Your task to perform on an android device: Show me popular games on the Play Store Image 0: 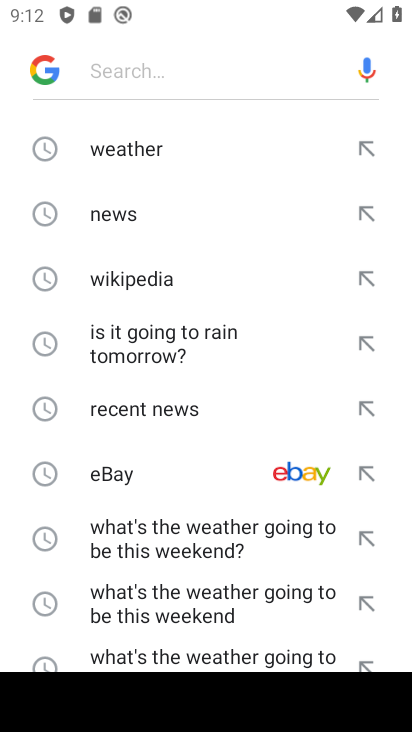
Step 0: press home button
Your task to perform on an android device: Show me popular games on the Play Store Image 1: 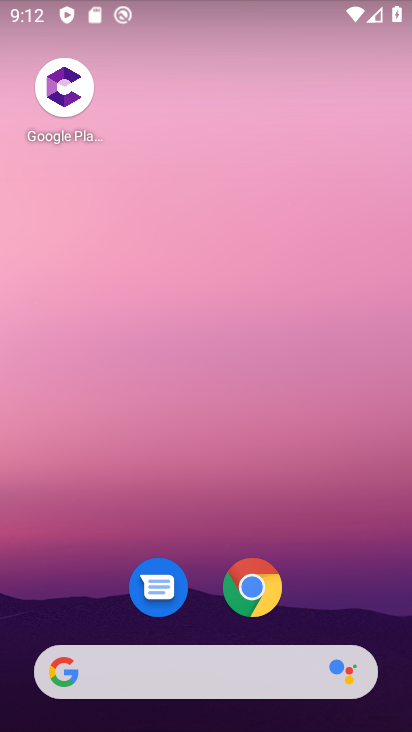
Step 1: drag from (191, 663) to (154, 1)
Your task to perform on an android device: Show me popular games on the Play Store Image 2: 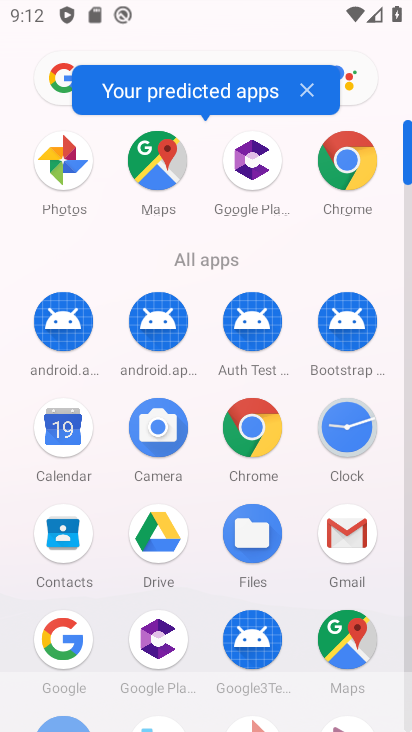
Step 2: drag from (191, 567) to (174, 82)
Your task to perform on an android device: Show me popular games on the Play Store Image 3: 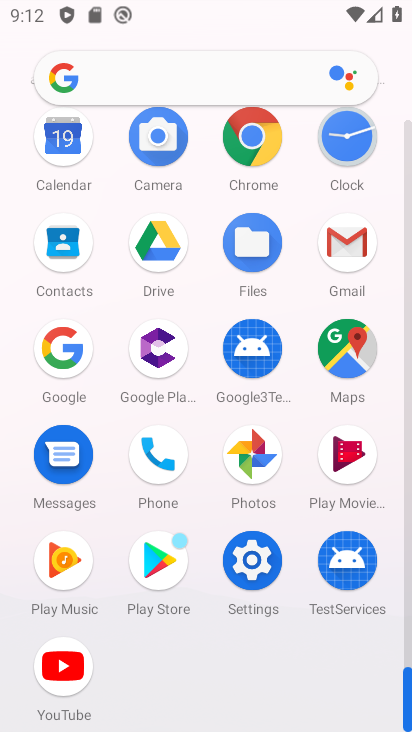
Step 3: click (162, 573)
Your task to perform on an android device: Show me popular games on the Play Store Image 4: 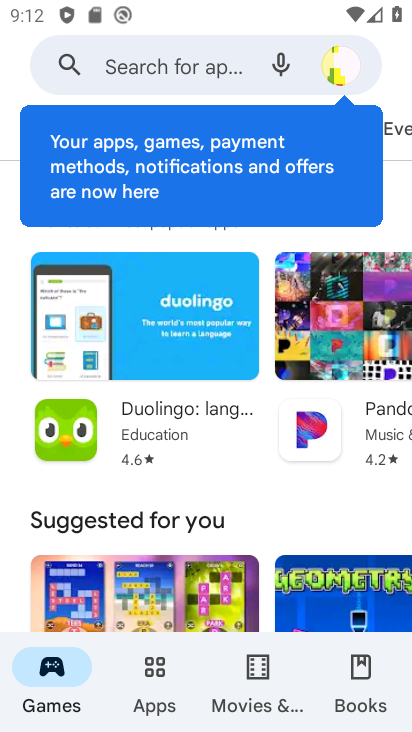
Step 4: click (152, 682)
Your task to perform on an android device: Show me popular games on the Play Store Image 5: 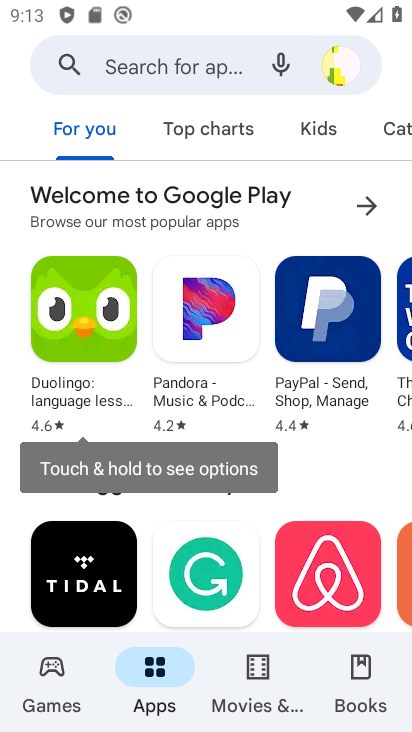
Step 5: drag from (267, 474) to (209, 11)
Your task to perform on an android device: Show me popular games on the Play Store Image 6: 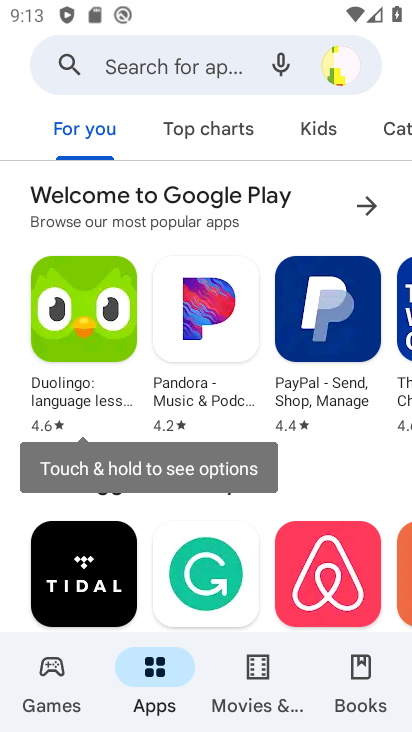
Step 6: drag from (323, 458) to (250, 1)
Your task to perform on an android device: Show me popular games on the Play Store Image 7: 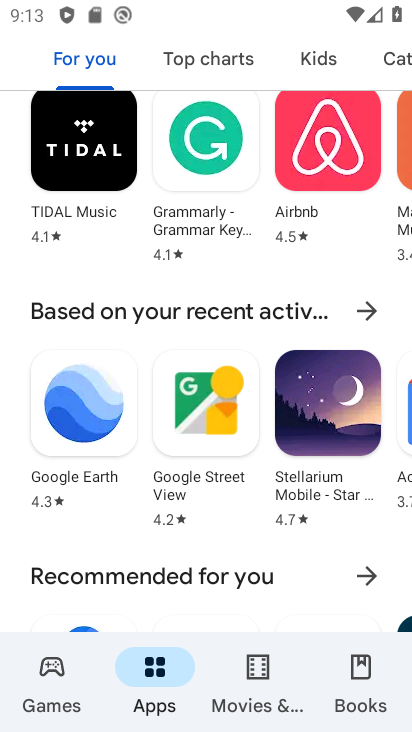
Step 7: drag from (243, 568) to (205, 124)
Your task to perform on an android device: Show me popular games on the Play Store Image 8: 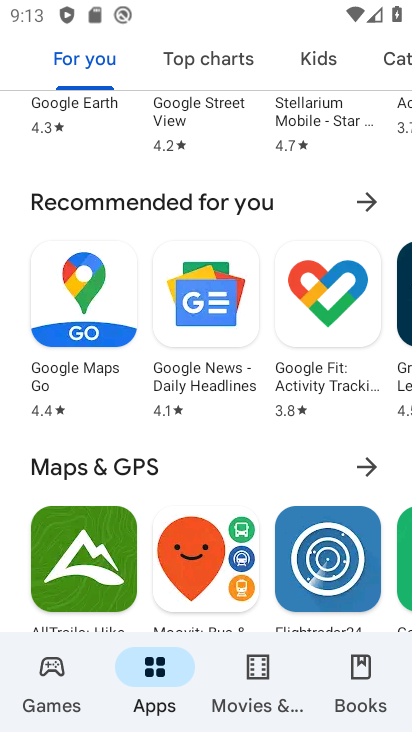
Step 8: click (46, 690)
Your task to perform on an android device: Show me popular games on the Play Store Image 9: 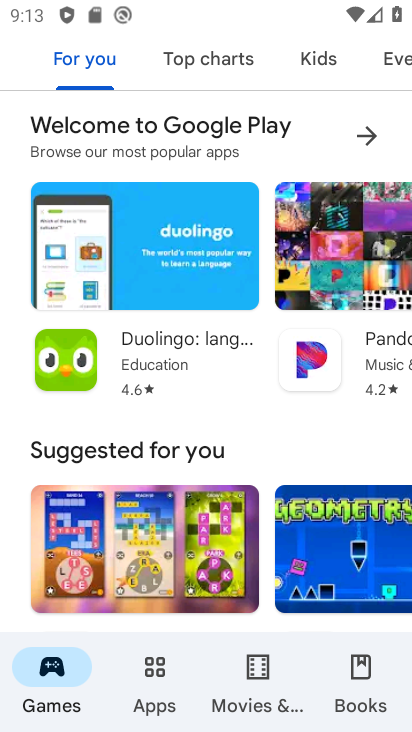
Step 9: drag from (237, 457) to (181, 0)
Your task to perform on an android device: Show me popular games on the Play Store Image 10: 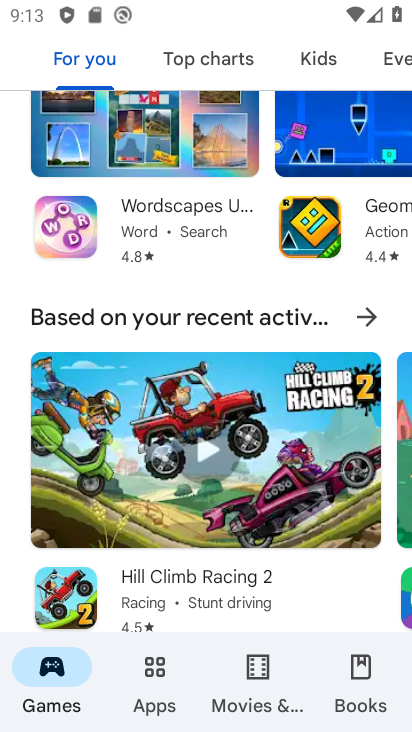
Step 10: drag from (236, 301) to (194, 118)
Your task to perform on an android device: Show me popular games on the Play Store Image 11: 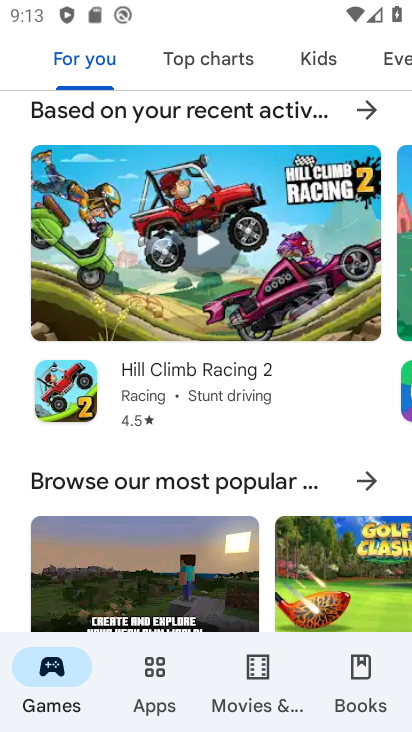
Step 11: click (383, 473)
Your task to perform on an android device: Show me popular games on the Play Store Image 12: 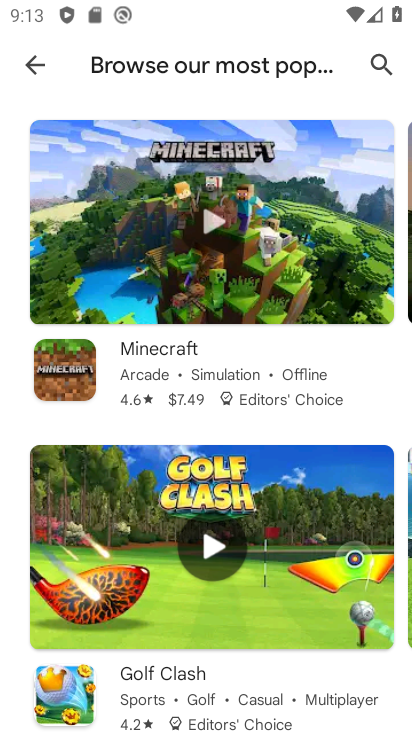
Step 12: task complete